Your task to perform on an android device: Search for vegetarian restaurants on Maps Image 0: 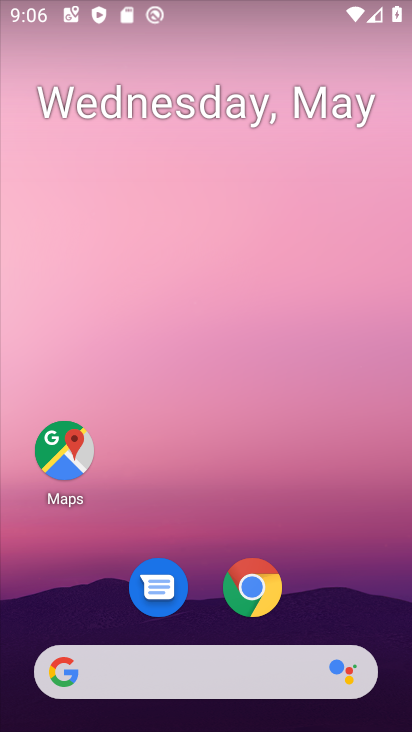
Step 0: drag from (199, 727) to (199, 142)
Your task to perform on an android device: Search for vegetarian restaurants on Maps Image 1: 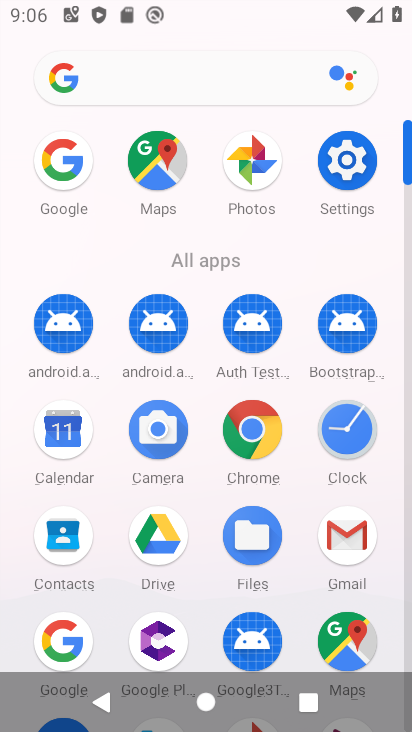
Step 1: click (348, 639)
Your task to perform on an android device: Search for vegetarian restaurants on Maps Image 2: 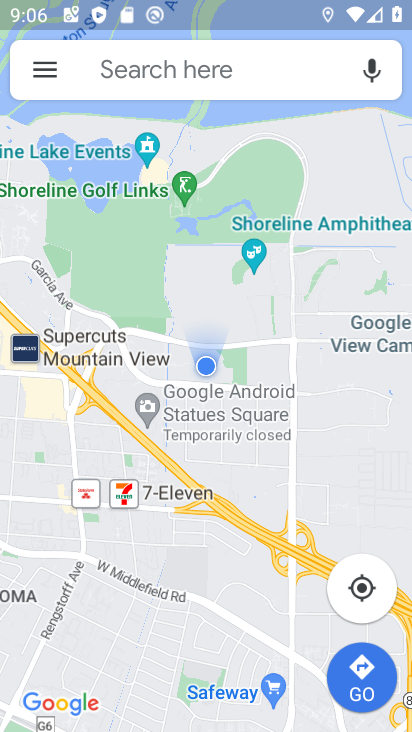
Step 2: click (189, 74)
Your task to perform on an android device: Search for vegetarian restaurants on Maps Image 3: 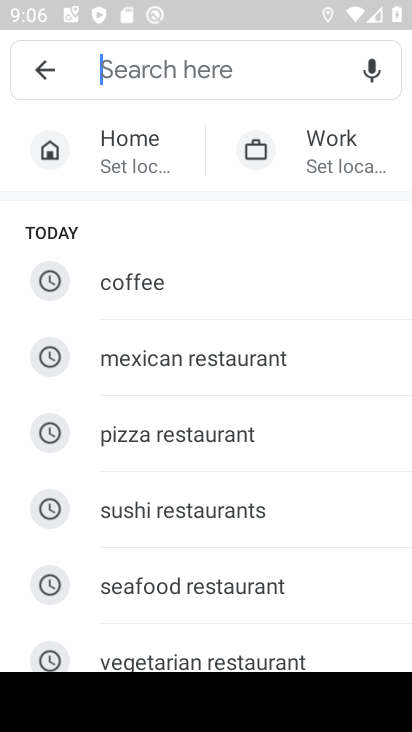
Step 3: type "Vegetarian restaurants"
Your task to perform on an android device: Search for vegetarian restaurants on Maps Image 4: 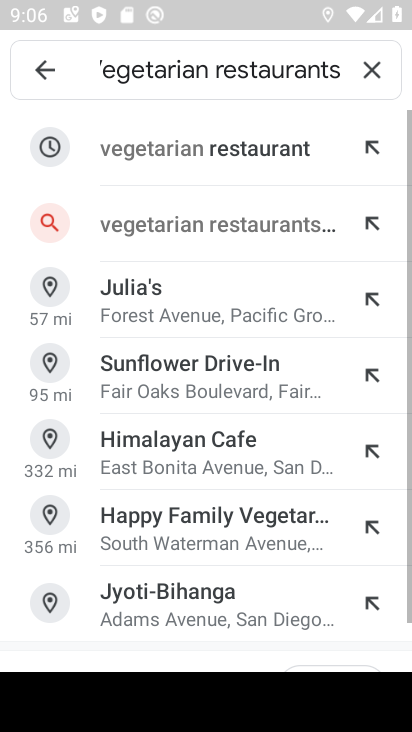
Step 4: click (178, 143)
Your task to perform on an android device: Search for vegetarian restaurants on Maps Image 5: 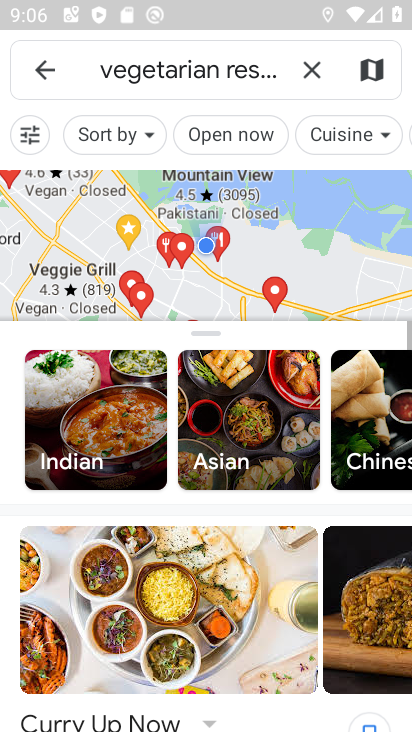
Step 5: task complete